Your task to perform on an android device: delete a single message in the gmail app Image 0: 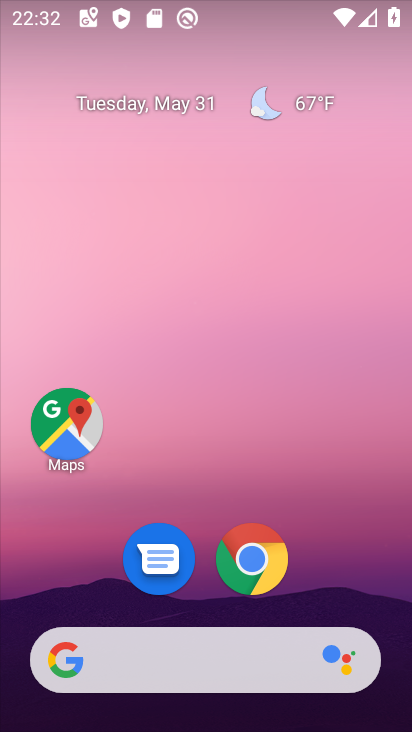
Step 0: drag from (327, 566) to (312, 71)
Your task to perform on an android device: delete a single message in the gmail app Image 1: 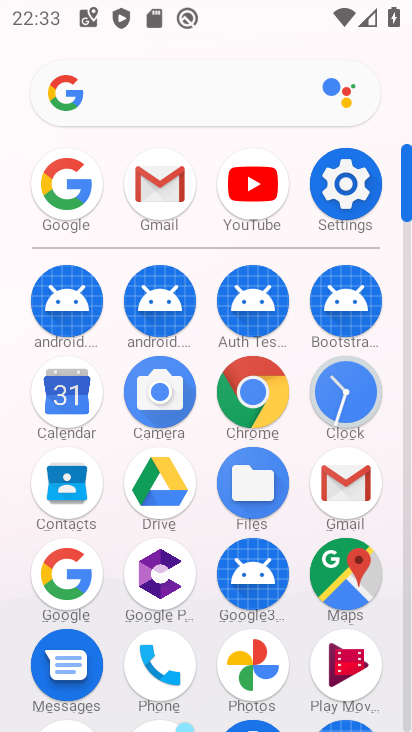
Step 1: click (161, 182)
Your task to perform on an android device: delete a single message in the gmail app Image 2: 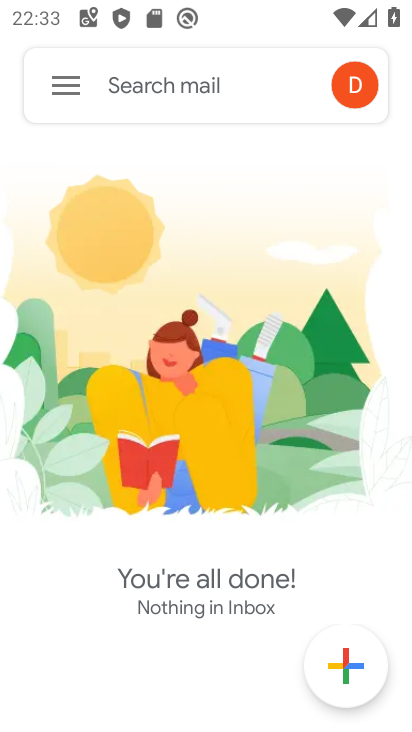
Step 2: click (72, 88)
Your task to perform on an android device: delete a single message in the gmail app Image 3: 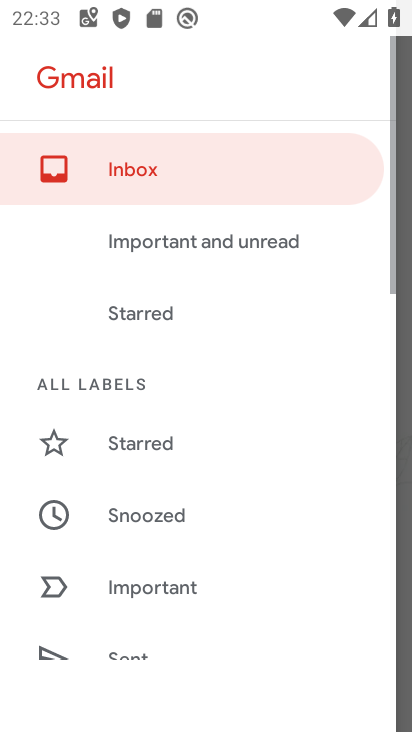
Step 3: drag from (219, 546) to (211, 190)
Your task to perform on an android device: delete a single message in the gmail app Image 4: 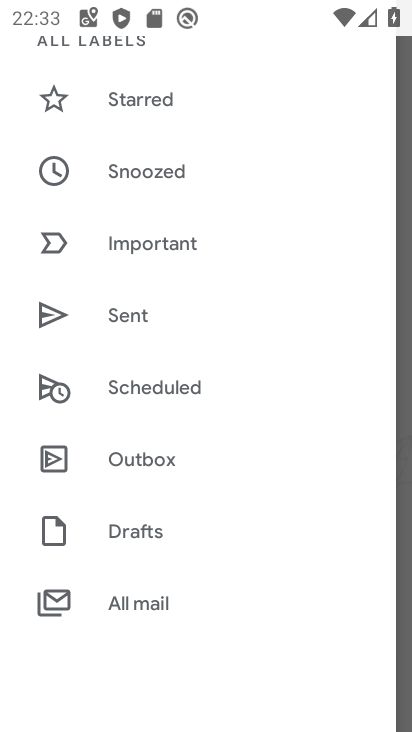
Step 4: click (171, 606)
Your task to perform on an android device: delete a single message in the gmail app Image 5: 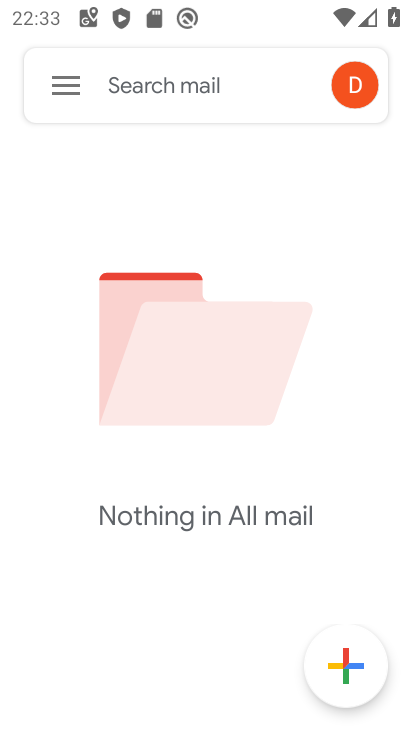
Step 5: task complete